Your task to perform on an android device: Add usb-c to usb-b to the cart on bestbuy, then select checkout. Image 0: 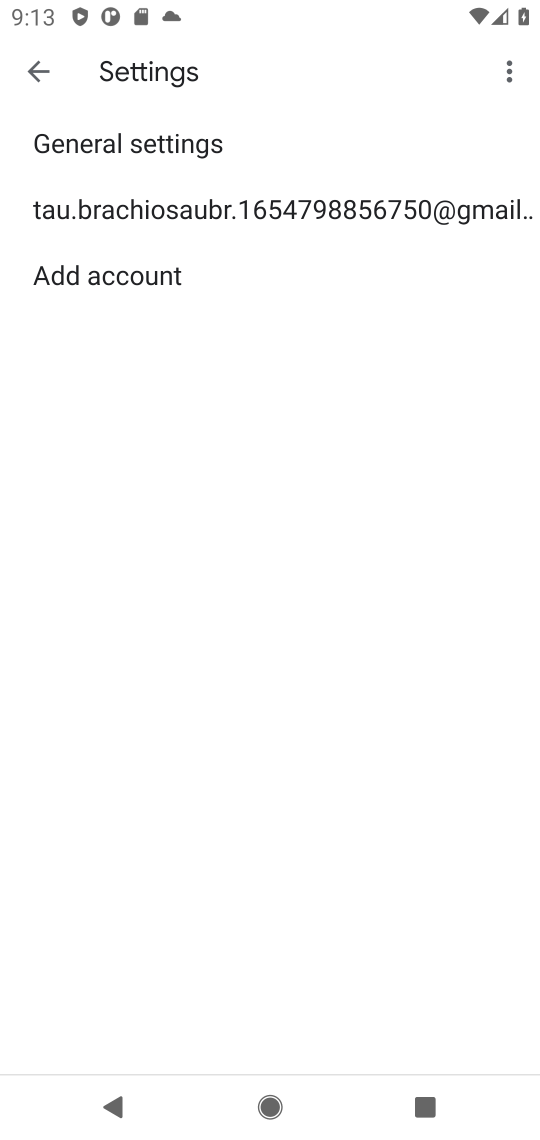
Step 0: task complete